Your task to perform on an android device: Open Google Chrome and click the shortcut for Amazon.com Image 0: 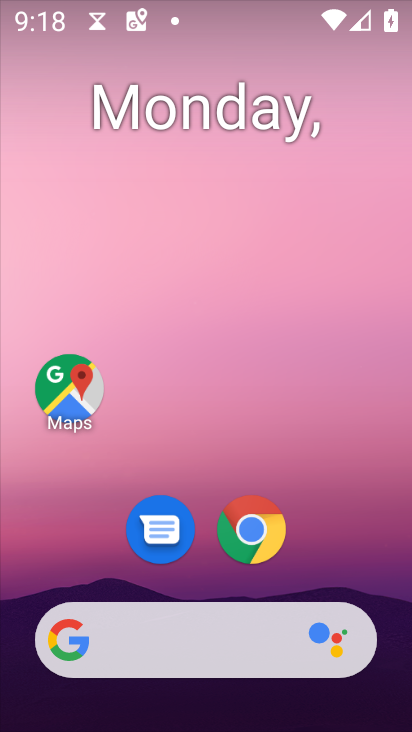
Step 0: drag from (250, 700) to (181, 221)
Your task to perform on an android device: Open Google Chrome and click the shortcut for Amazon.com Image 1: 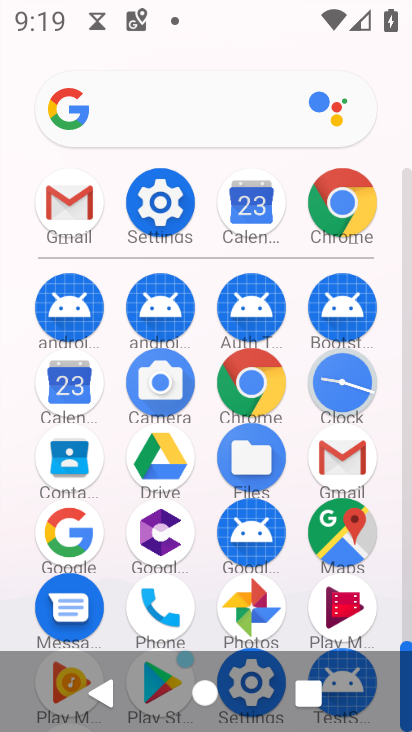
Step 1: click (350, 204)
Your task to perform on an android device: Open Google Chrome and click the shortcut for Amazon.com Image 2: 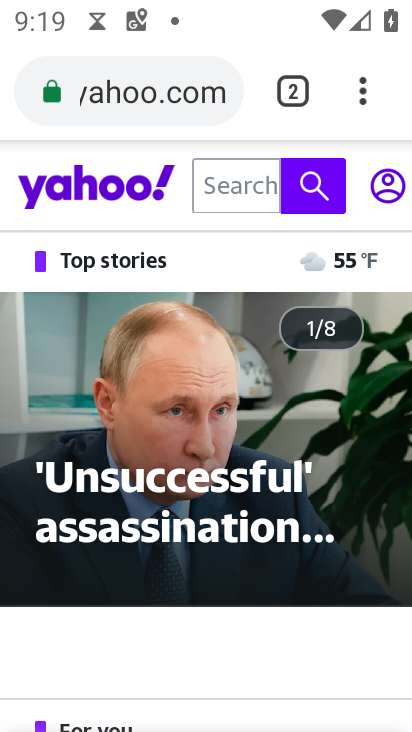
Step 2: drag from (364, 97) to (67, 185)
Your task to perform on an android device: Open Google Chrome and click the shortcut for Amazon.com Image 3: 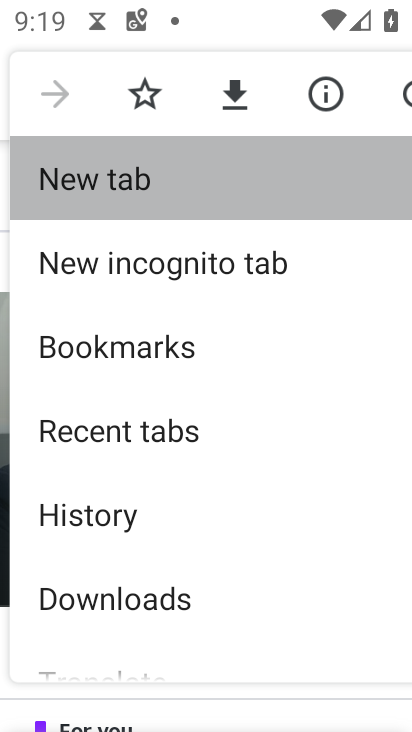
Step 3: click (72, 182)
Your task to perform on an android device: Open Google Chrome and click the shortcut for Amazon.com Image 4: 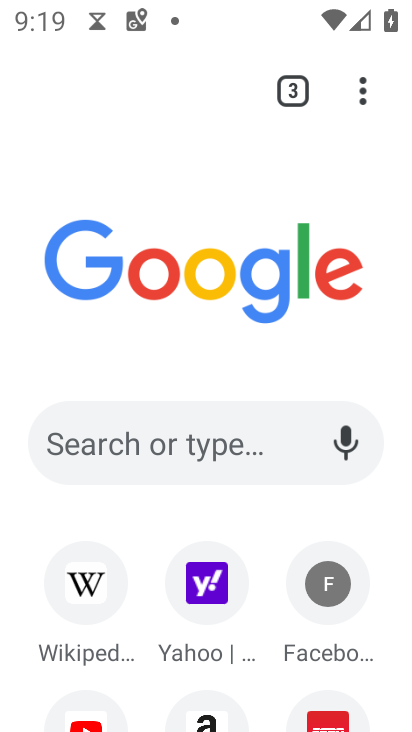
Step 4: drag from (263, 635) to (202, 236)
Your task to perform on an android device: Open Google Chrome and click the shortcut for Amazon.com Image 5: 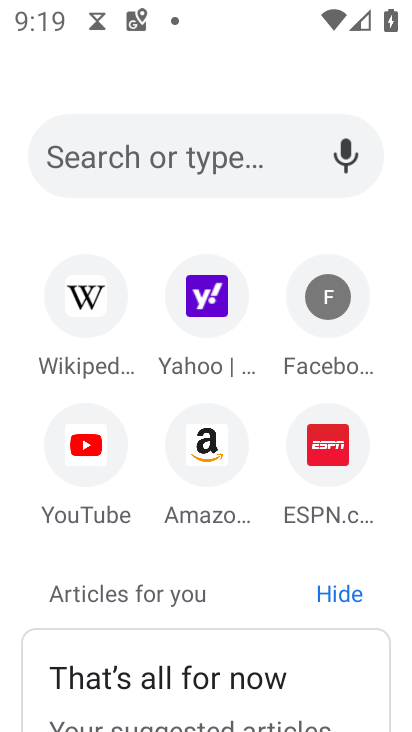
Step 5: drag from (206, 444) to (147, 122)
Your task to perform on an android device: Open Google Chrome and click the shortcut for Amazon.com Image 6: 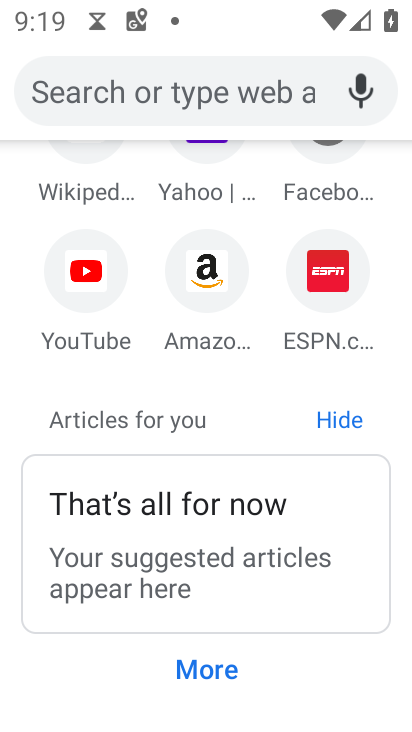
Step 6: click (223, 279)
Your task to perform on an android device: Open Google Chrome and click the shortcut for Amazon.com Image 7: 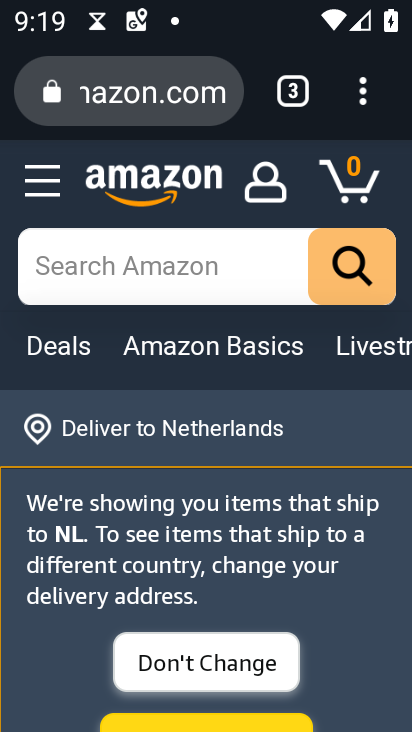
Step 7: task complete